Your task to perform on an android device: Go to Wikipedia Image 0: 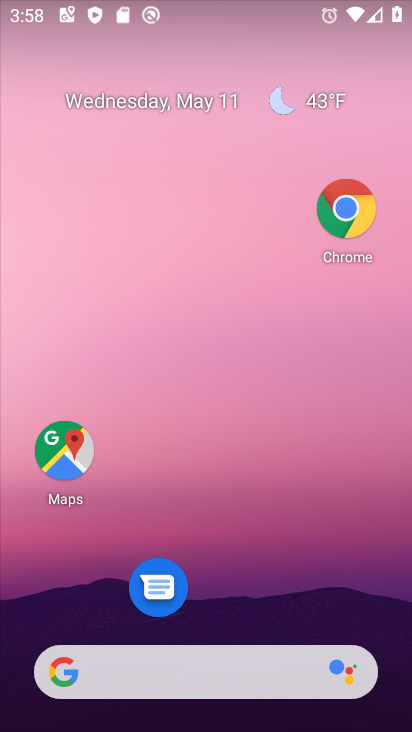
Step 0: click (342, 220)
Your task to perform on an android device: Go to Wikipedia Image 1: 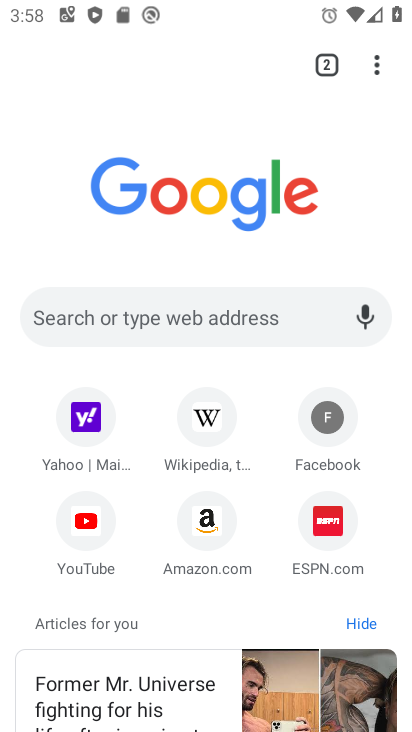
Step 1: click (209, 419)
Your task to perform on an android device: Go to Wikipedia Image 2: 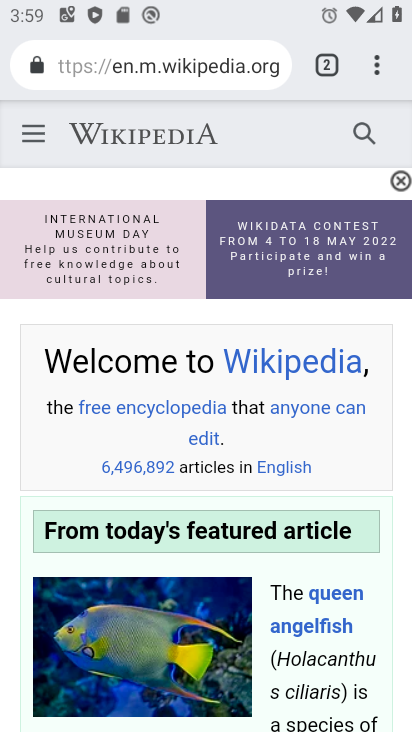
Step 2: task complete